Your task to perform on an android device: clear history in the chrome app Image 0: 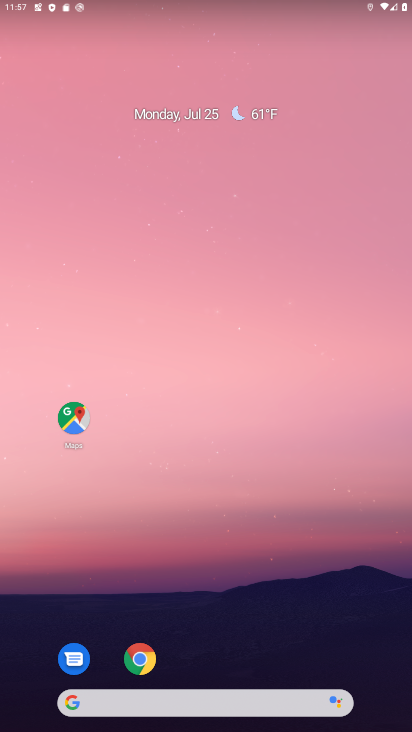
Step 0: drag from (219, 716) to (286, 157)
Your task to perform on an android device: clear history in the chrome app Image 1: 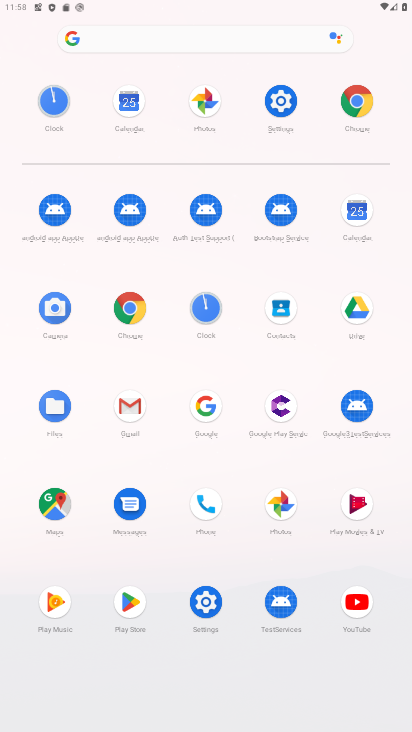
Step 1: click (357, 101)
Your task to perform on an android device: clear history in the chrome app Image 2: 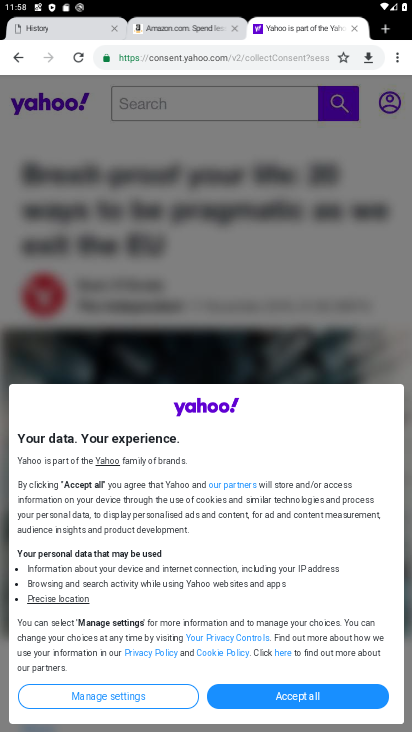
Step 2: click (400, 62)
Your task to perform on an android device: clear history in the chrome app Image 3: 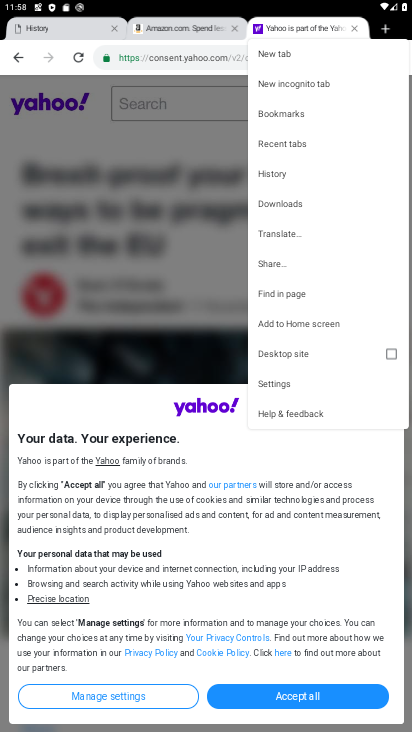
Step 3: click (275, 174)
Your task to perform on an android device: clear history in the chrome app Image 4: 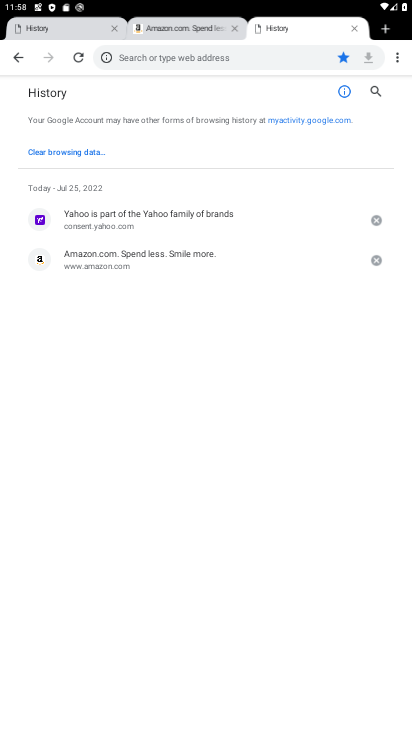
Step 4: click (64, 154)
Your task to perform on an android device: clear history in the chrome app Image 5: 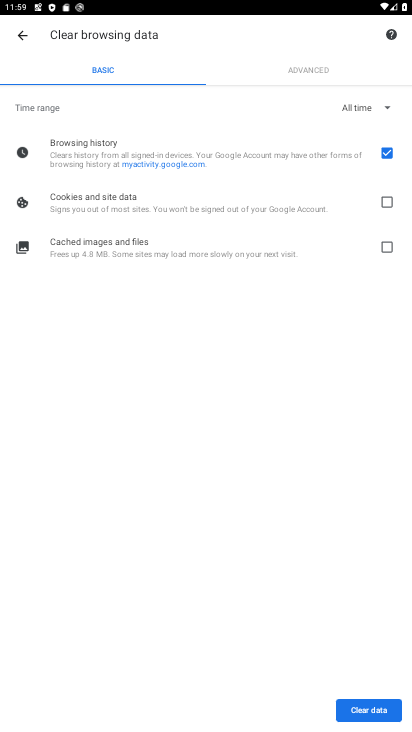
Step 5: click (381, 710)
Your task to perform on an android device: clear history in the chrome app Image 6: 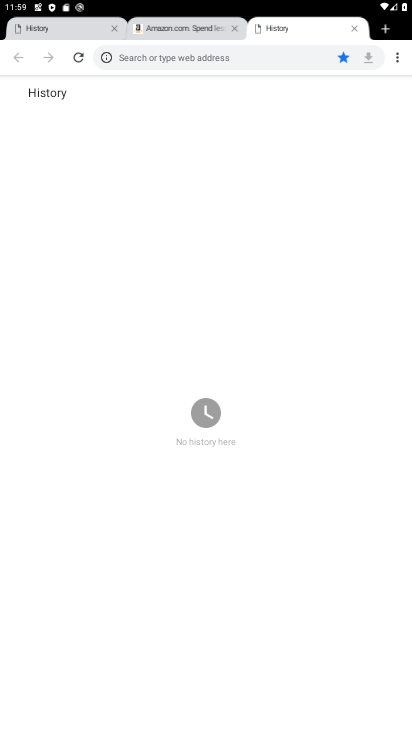
Step 6: task complete